Your task to perform on an android device: Is it going to rain today? Image 0: 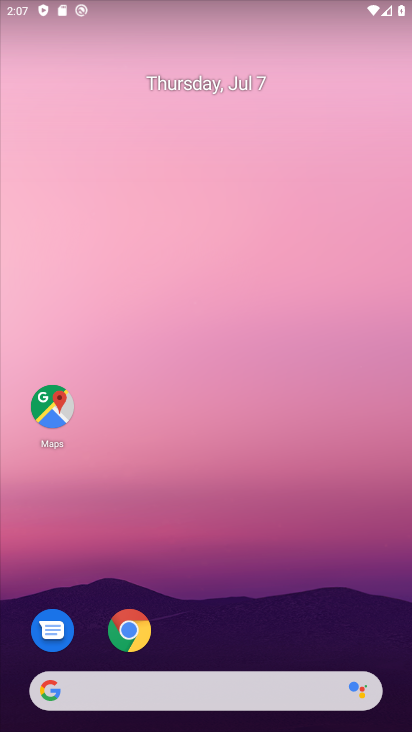
Step 0: drag from (240, 624) to (272, 297)
Your task to perform on an android device: Is it going to rain today? Image 1: 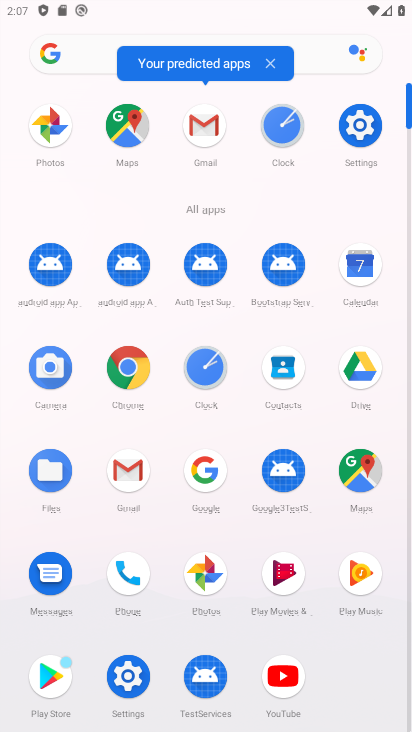
Step 1: click (118, 361)
Your task to perform on an android device: Is it going to rain today? Image 2: 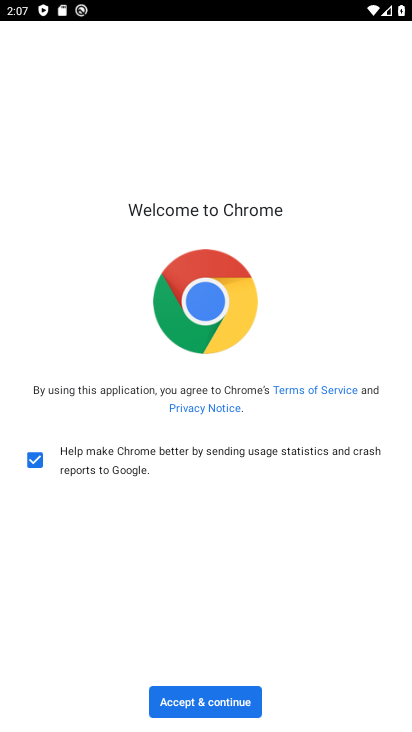
Step 2: click (176, 695)
Your task to perform on an android device: Is it going to rain today? Image 3: 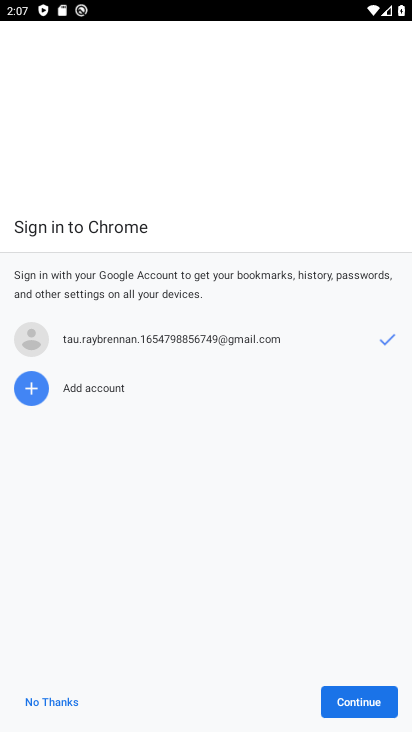
Step 3: click (361, 705)
Your task to perform on an android device: Is it going to rain today? Image 4: 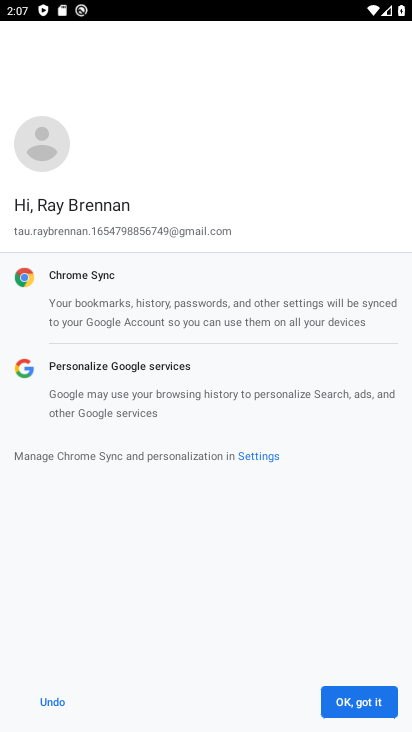
Step 4: click (361, 705)
Your task to perform on an android device: Is it going to rain today? Image 5: 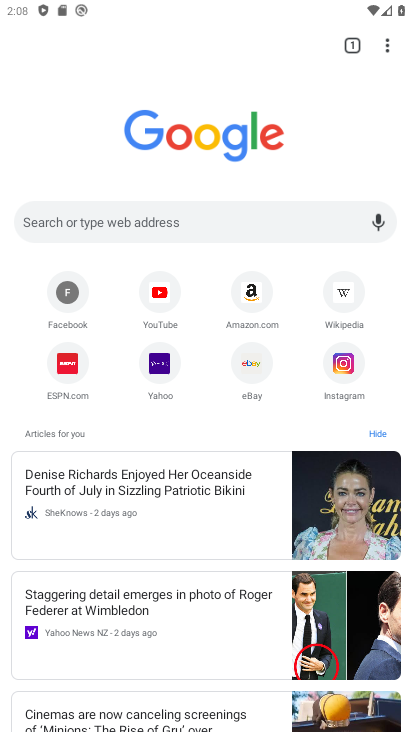
Step 5: click (282, 214)
Your task to perform on an android device: Is it going to rain today? Image 6: 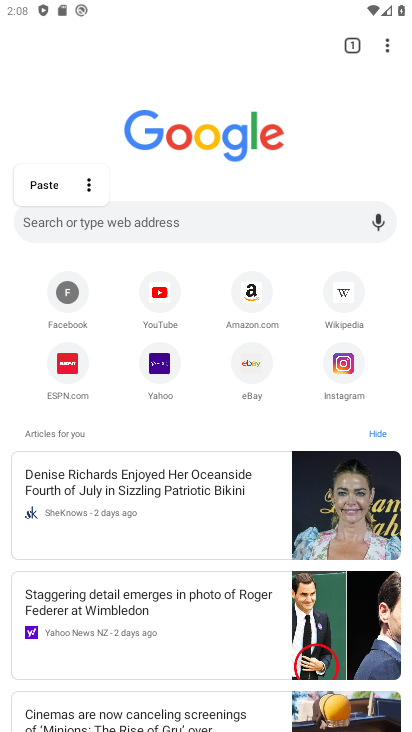
Step 6: type "Is it going to rain today "
Your task to perform on an android device: Is it going to rain today? Image 7: 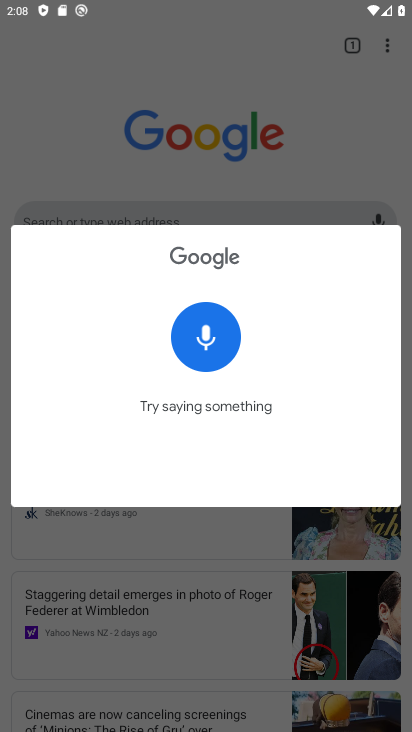
Step 7: click (291, 130)
Your task to perform on an android device: Is it going to rain today? Image 8: 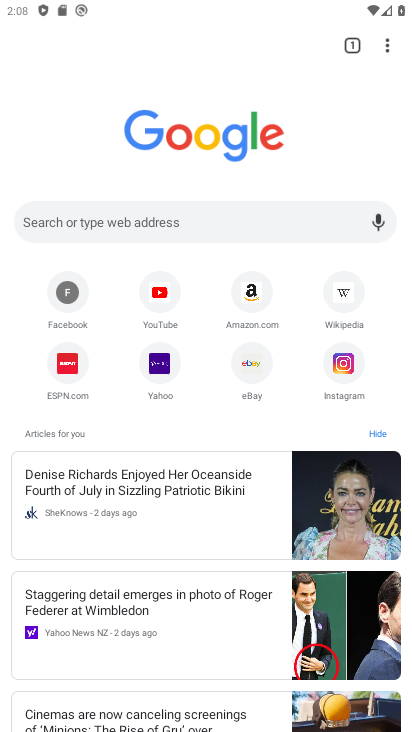
Step 8: click (172, 219)
Your task to perform on an android device: Is it going to rain today? Image 9: 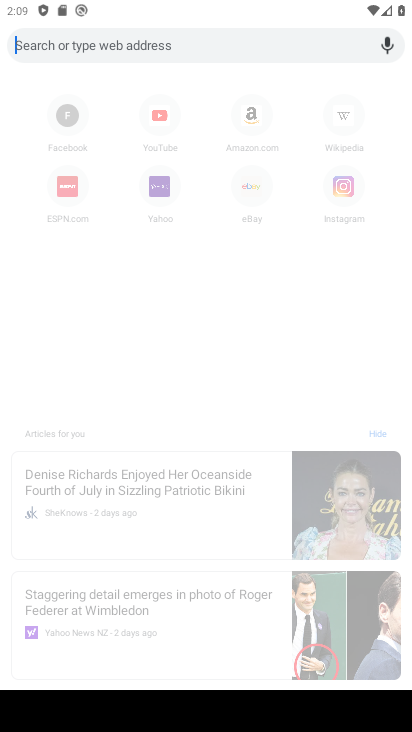
Step 9: type "Is it going to rain today? "
Your task to perform on an android device: Is it going to rain today? Image 10: 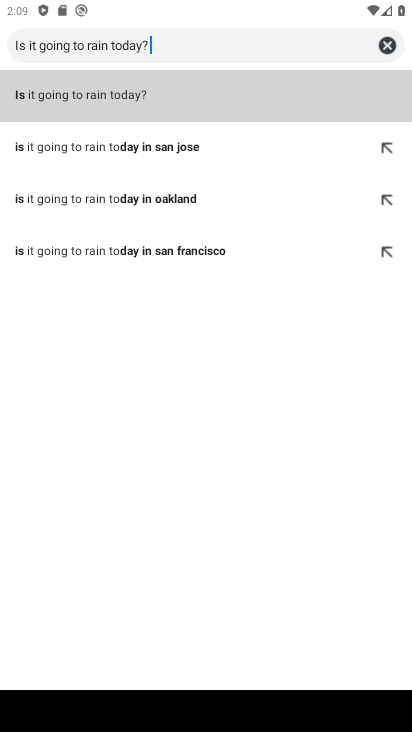
Step 10: click (141, 91)
Your task to perform on an android device: Is it going to rain today? Image 11: 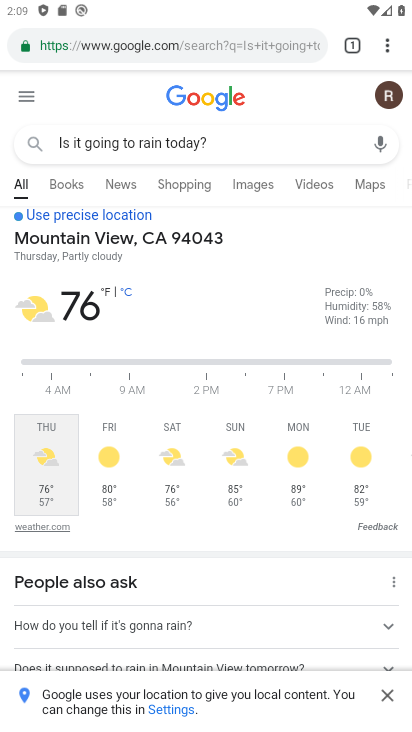
Step 11: task complete